Your task to perform on an android device: Open Chrome and go to settings Image 0: 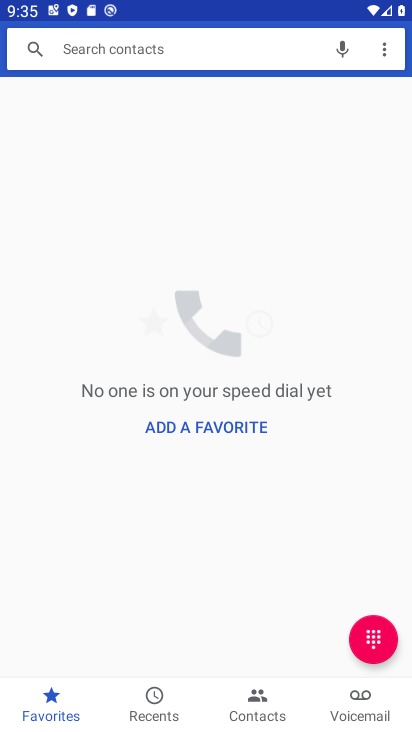
Step 0: press home button
Your task to perform on an android device: Open Chrome and go to settings Image 1: 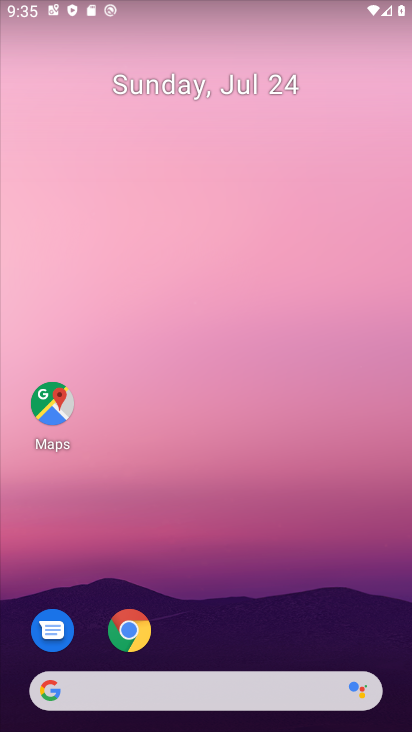
Step 1: click (118, 642)
Your task to perform on an android device: Open Chrome and go to settings Image 2: 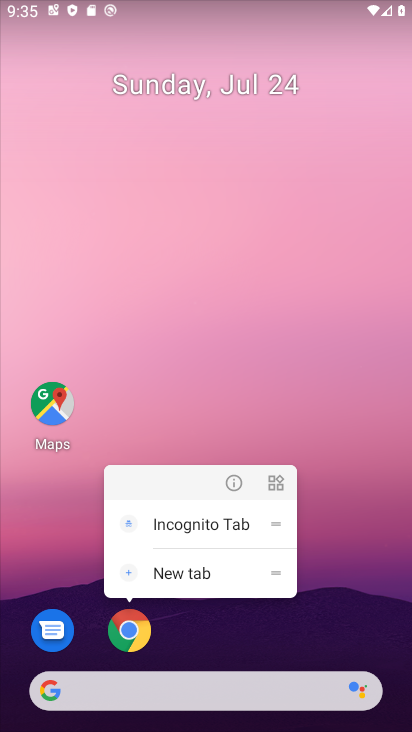
Step 2: click (144, 626)
Your task to perform on an android device: Open Chrome and go to settings Image 3: 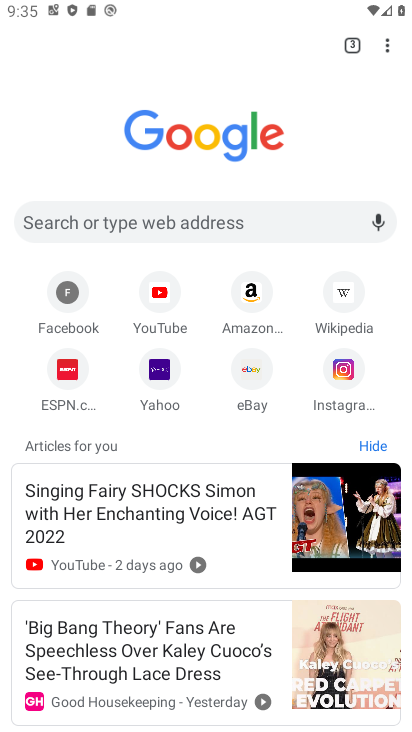
Step 3: click (387, 49)
Your task to perform on an android device: Open Chrome and go to settings Image 4: 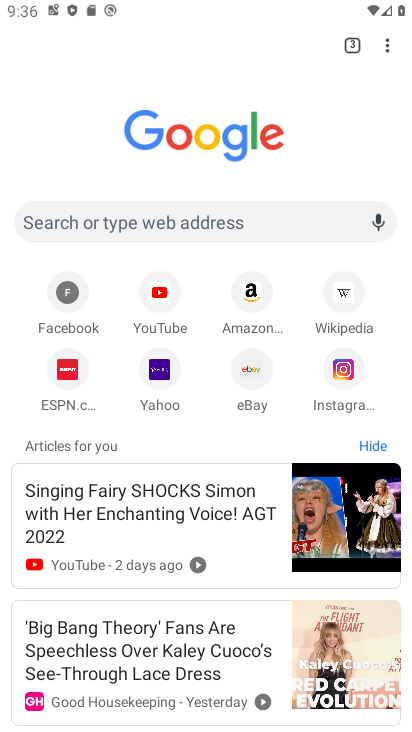
Step 4: click (380, 40)
Your task to perform on an android device: Open Chrome and go to settings Image 5: 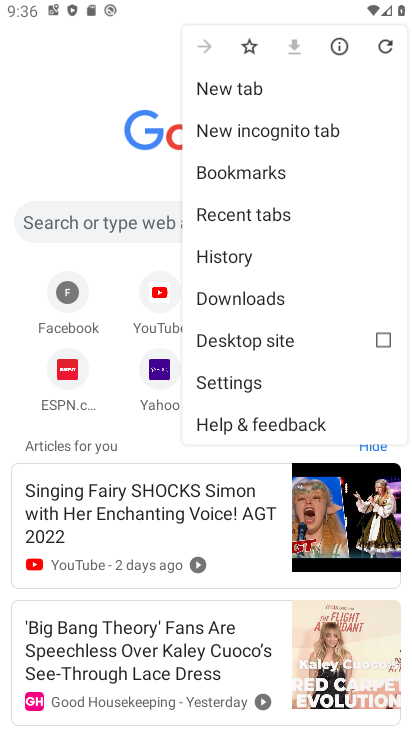
Step 5: click (248, 377)
Your task to perform on an android device: Open Chrome and go to settings Image 6: 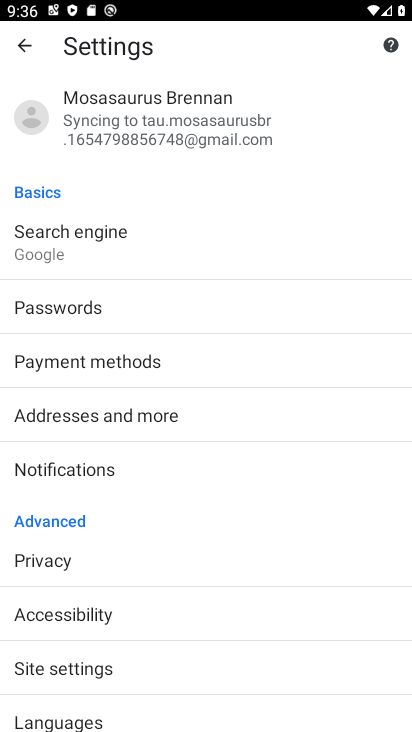
Step 6: task complete